Your task to perform on an android device: Go to Amazon Image 0: 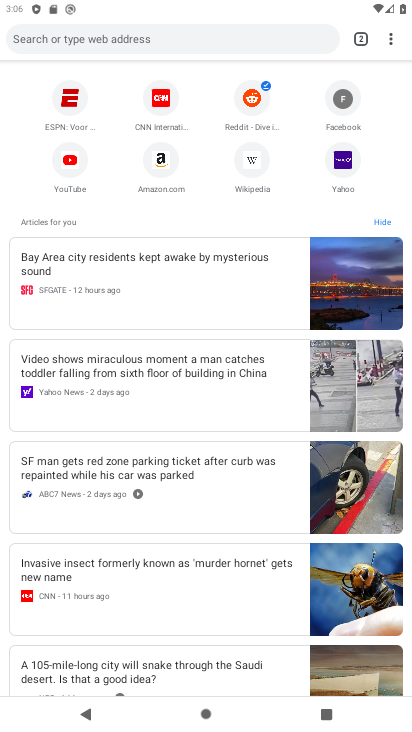
Step 0: click (157, 171)
Your task to perform on an android device: Go to Amazon Image 1: 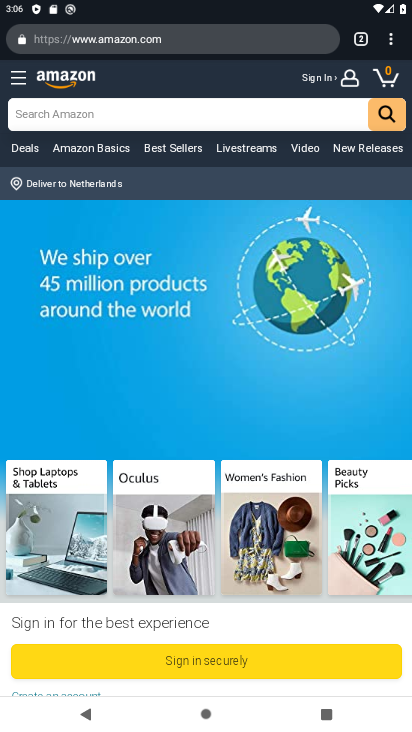
Step 1: task complete